Your task to perform on an android device: What's the weather? Image 0: 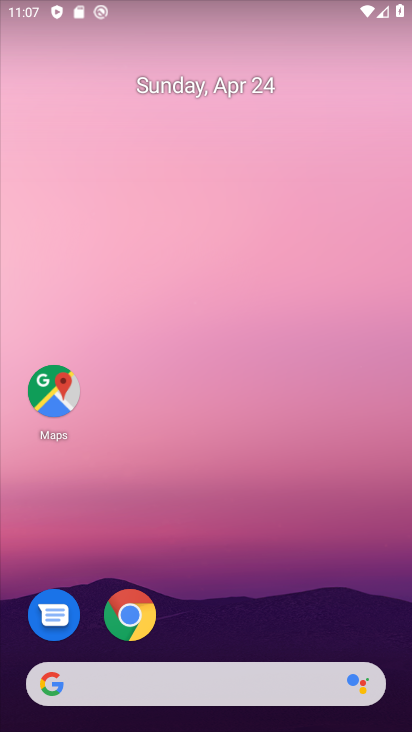
Step 0: press home button
Your task to perform on an android device: What's the weather? Image 1: 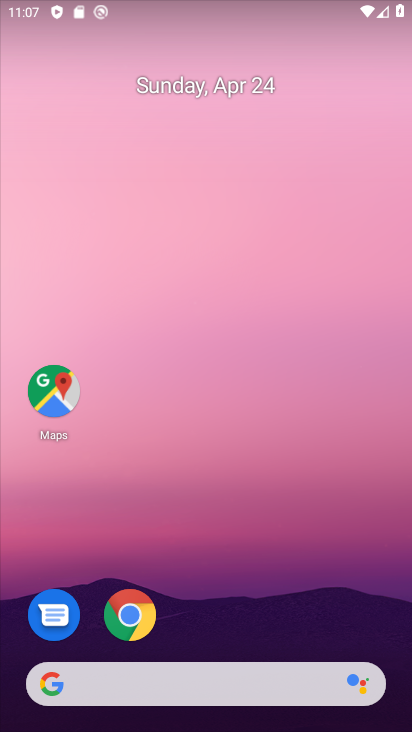
Step 1: click (167, 681)
Your task to perform on an android device: What's the weather? Image 2: 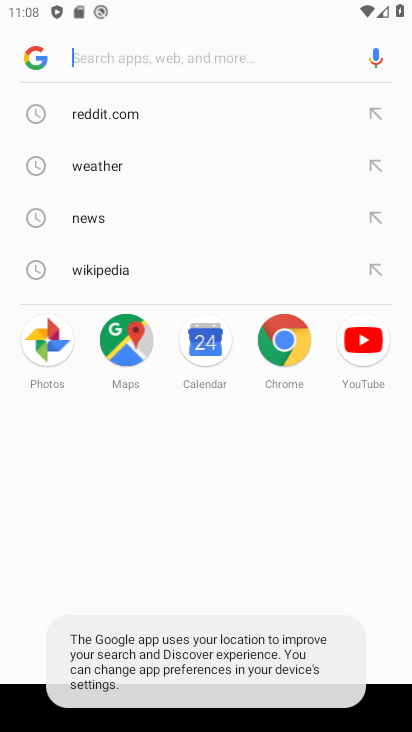
Step 2: click (118, 164)
Your task to perform on an android device: What's the weather? Image 3: 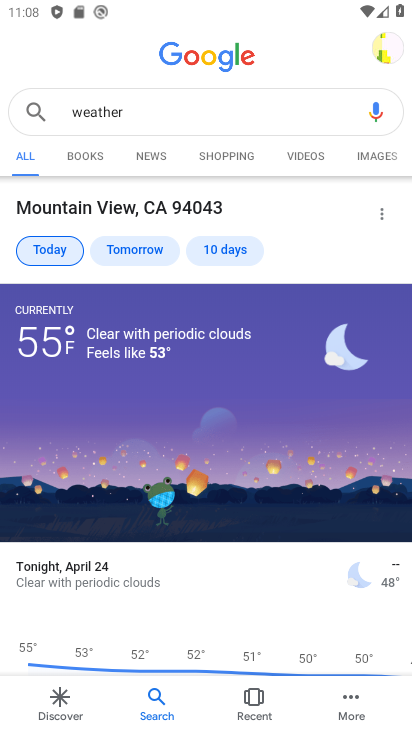
Step 3: task complete